Your task to perform on an android device: turn off picture-in-picture Image 0: 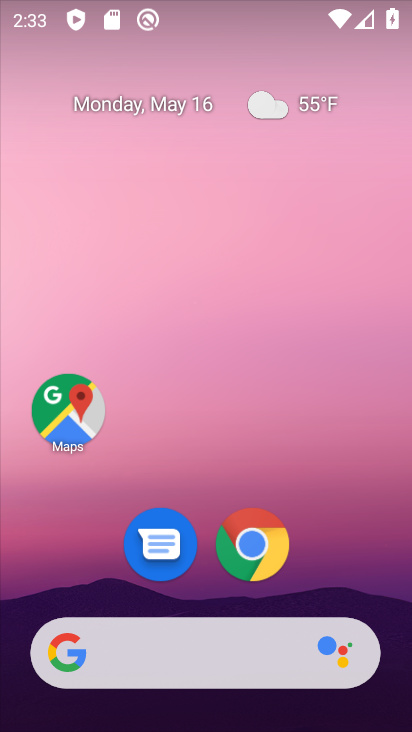
Step 0: click (262, 554)
Your task to perform on an android device: turn off picture-in-picture Image 1: 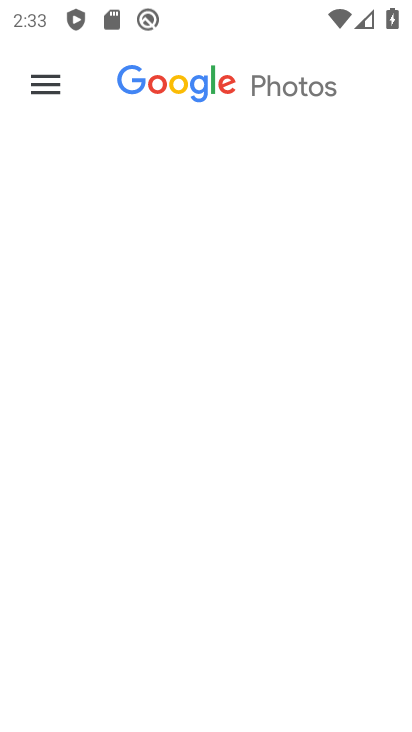
Step 1: click (264, 550)
Your task to perform on an android device: turn off picture-in-picture Image 2: 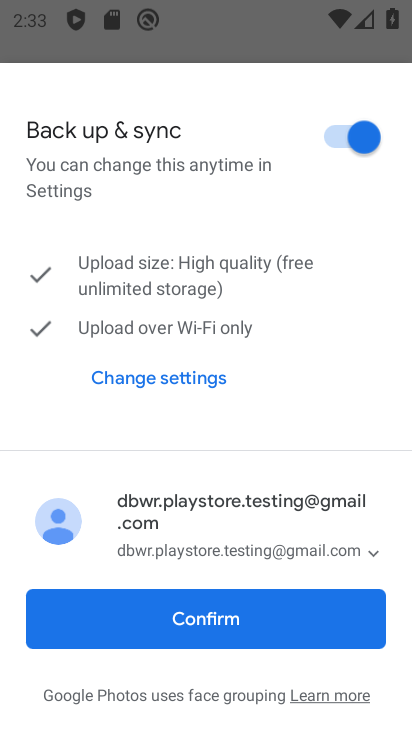
Step 2: press home button
Your task to perform on an android device: turn off picture-in-picture Image 3: 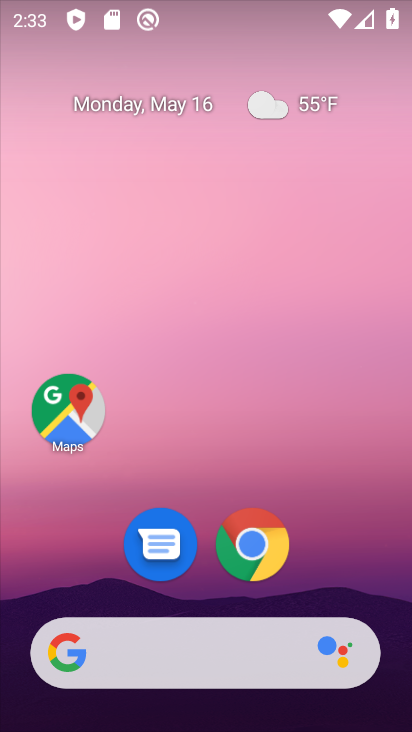
Step 3: click (278, 534)
Your task to perform on an android device: turn off picture-in-picture Image 4: 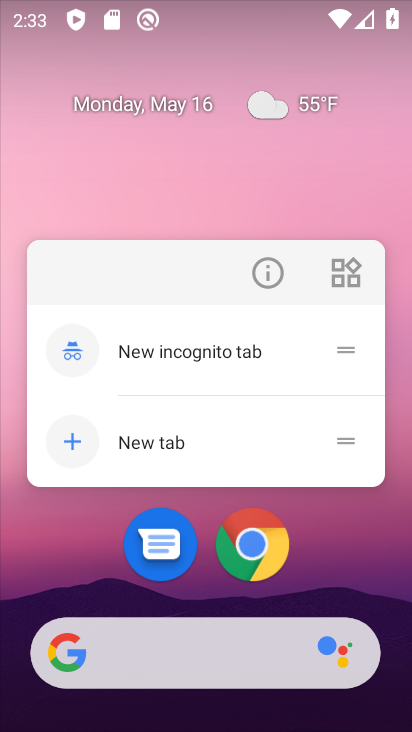
Step 4: click (268, 279)
Your task to perform on an android device: turn off picture-in-picture Image 5: 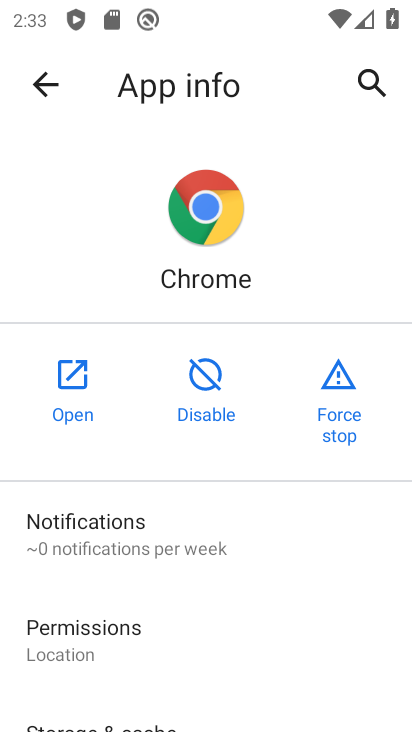
Step 5: drag from (201, 601) to (192, 254)
Your task to perform on an android device: turn off picture-in-picture Image 6: 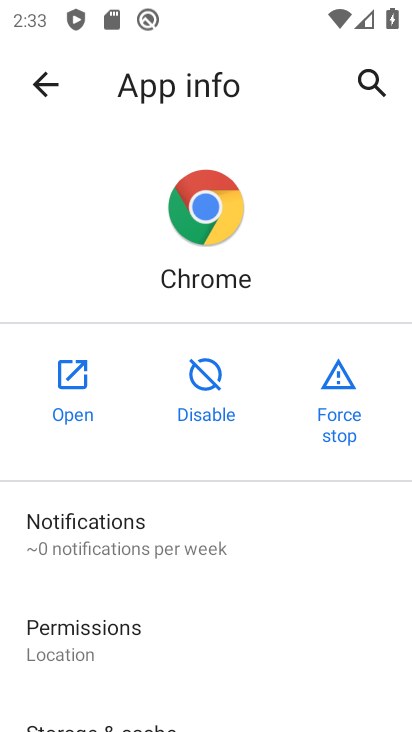
Step 6: drag from (152, 618) to (137, 280)
Your task to perform on an android device: turn off picture-in-picture Image 7: 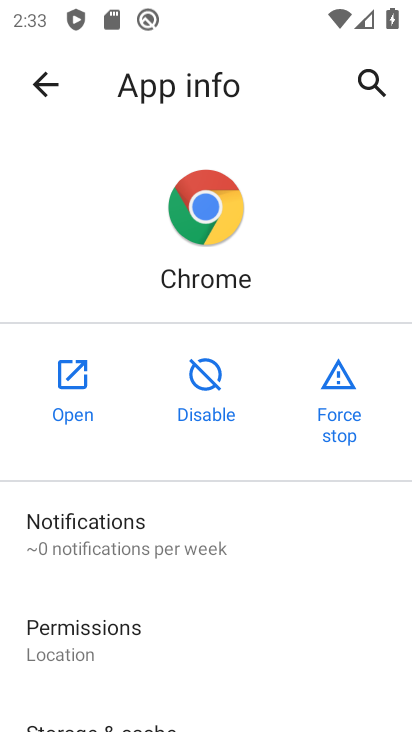
Step 7: drag from (161, 612) to (141, 289)
Your task to perform on an android device: turn off picture-in-picture Image 8: 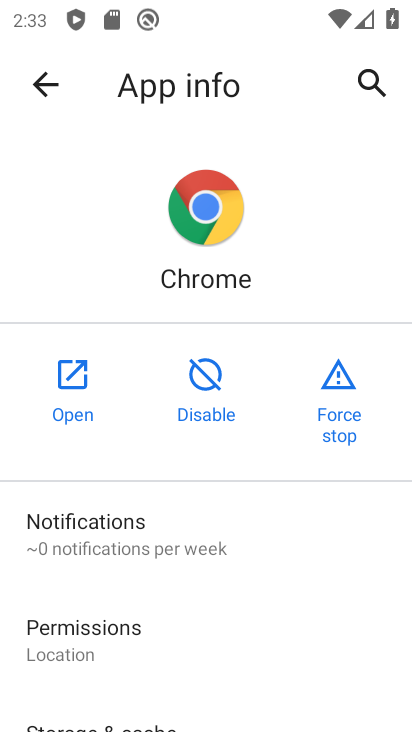
Step 8: drag from (143, 556) to (167, 250)
Your task to perform on an android device: turn off picture-in-picture Image 9: 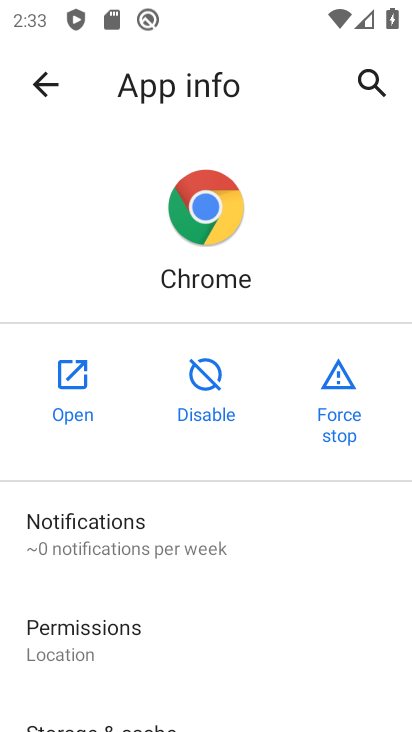
Step 9: drag from (206, 616) to (271, 313)
Your task to perform on an android device: turn off picture-in-picture Image 10: 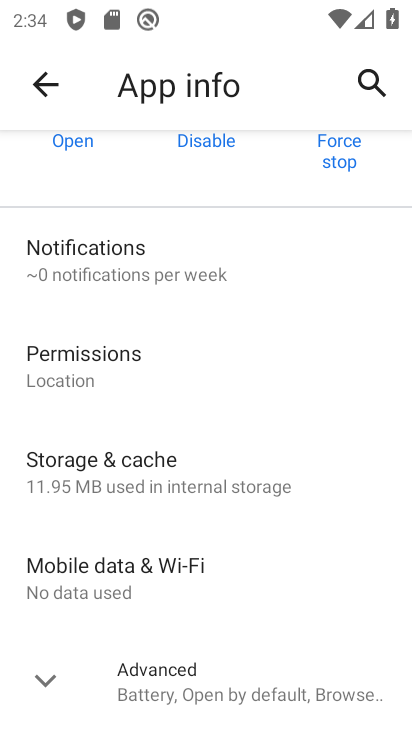
Step 10: drag from (135, 642) to (137, 268)
Your task to perform on an android device: turn off picture-in-picture Image 11: 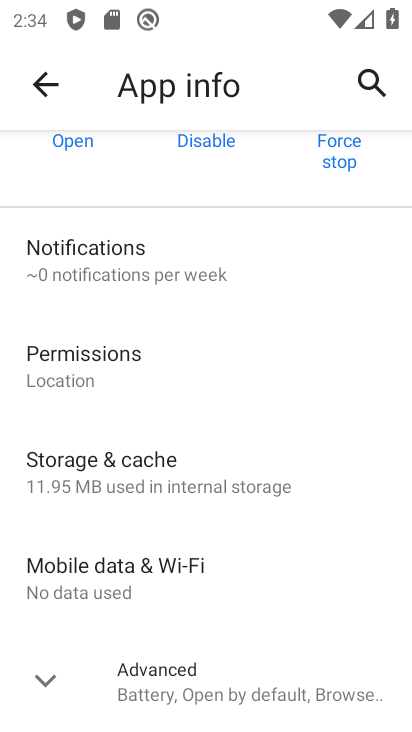
Step 11: drag from (175, 587) to (194, 309)
Your task to perform on an android device: turn off picture-in-picture Image 12: 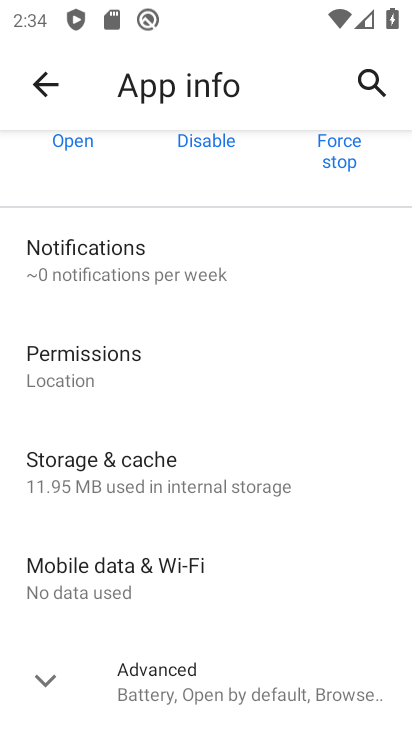
Step 12: click (181, 695)
Your task to perform on an android device: turn off picture-in-picture Image 13: 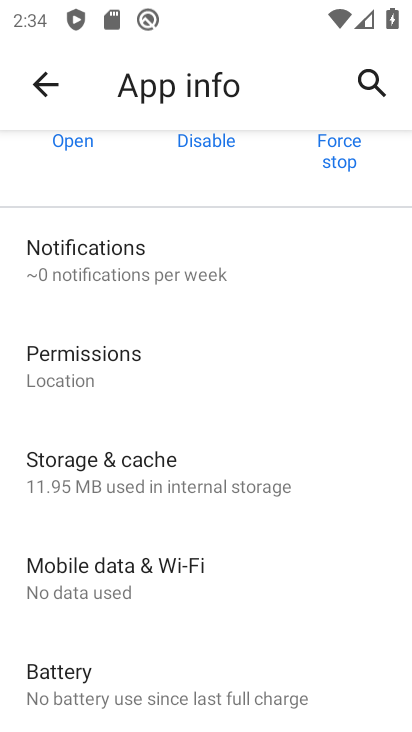
Step 13: drag from (182, 685) to (174, 330)
Your task to perform on an android device: turn off picture-in-picture Image 14: 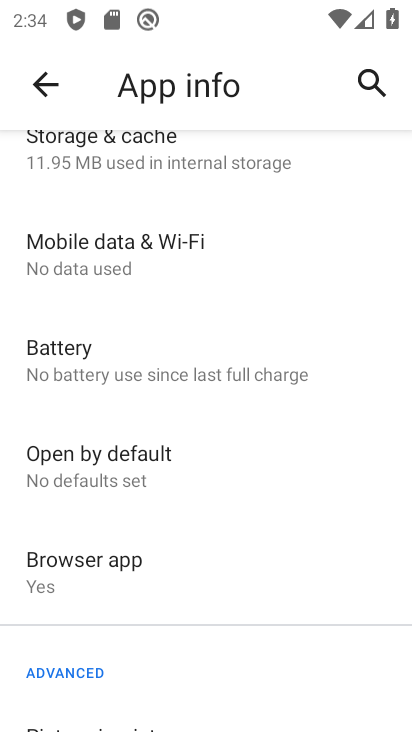
Step 14: drag from (236, 572) to (232, 211)
Your task to perform on an android device: turn off picture-in-picture Image 15: 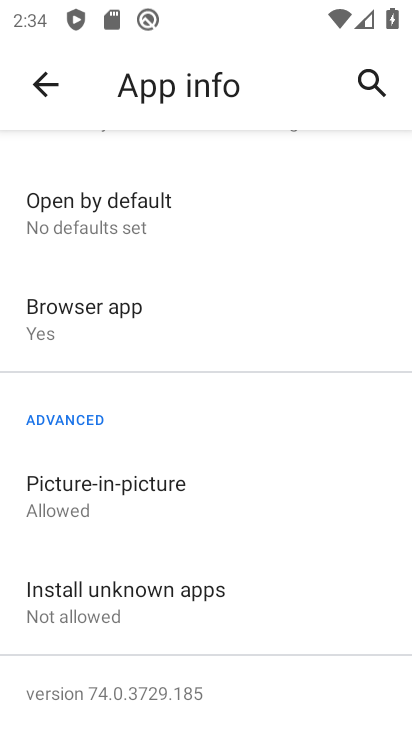
Step 15: click (140, 504)
Your task to perform on an android device: turn off picture-in-picture Image 16: 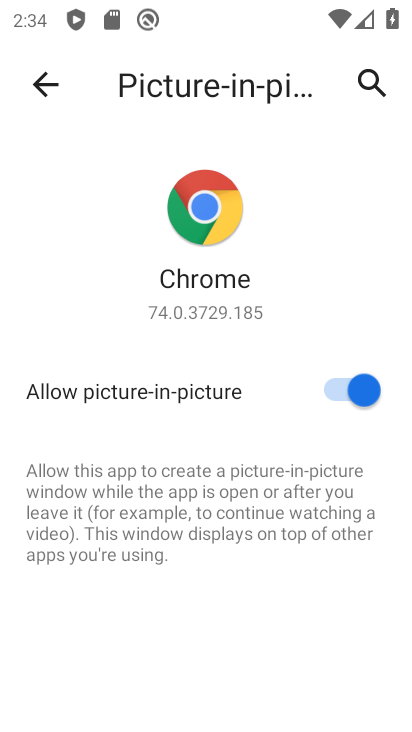
Step 16: click (339, 392)
Your task to perform on an android device: turn off picture-in-picture Image 17: 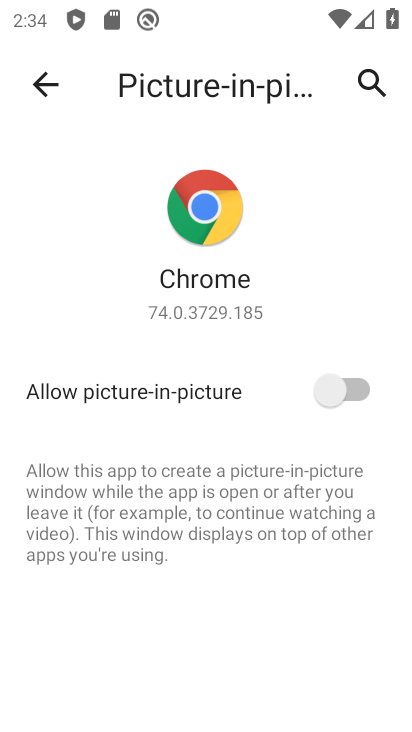
Step 17: task complete